Your task to perform on an android device: change the clock display to analog Image 0: 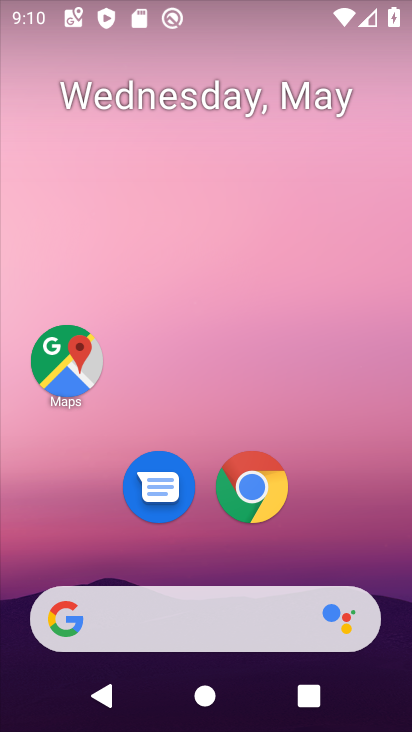
Step 0: drag from (351, 516) to (273, 109)
Your task to perform on an android device: change the clock display to analog Image 1: 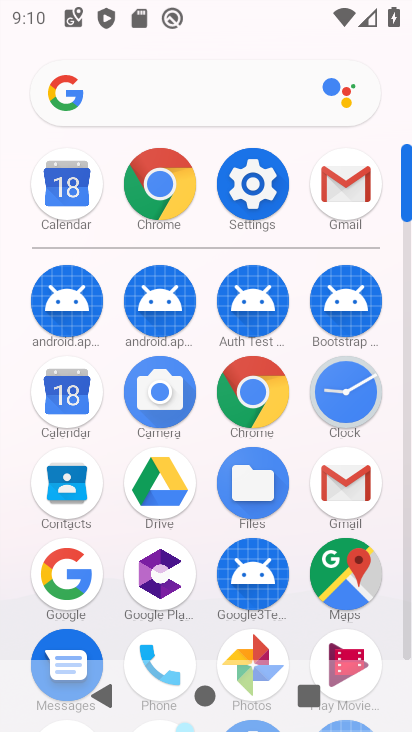
Step 1: click (351, 399)
Your task to perform on an android device: change the clock display to analog Image 2: 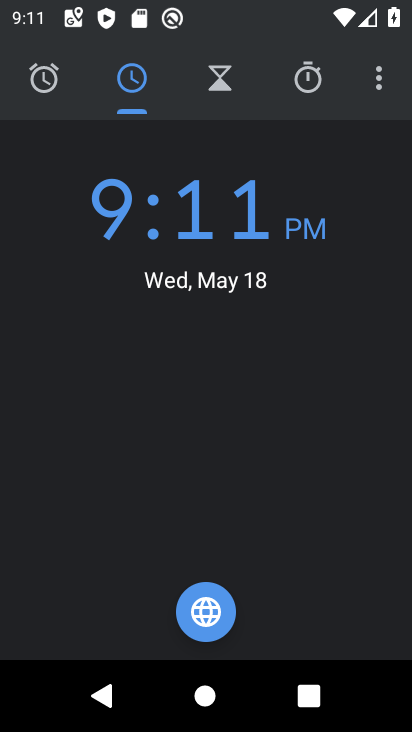
Step 2: click (379, 77)
Your task to perform on an android device: change the clock display to analog Image 3: 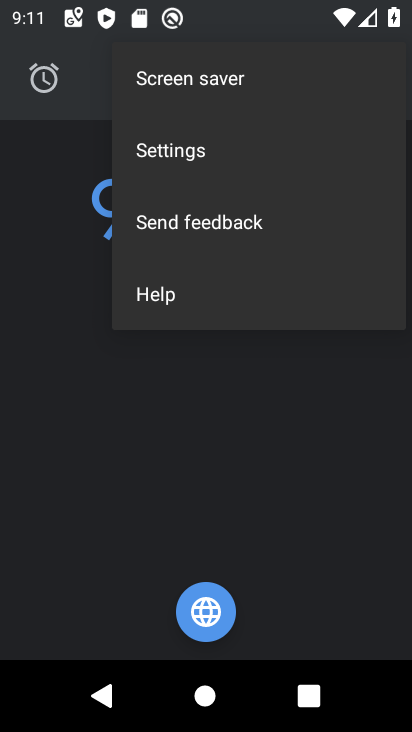
Step 3: click (183, 140)
Your task to perform on an android device: change the clock display to analog Image 4: 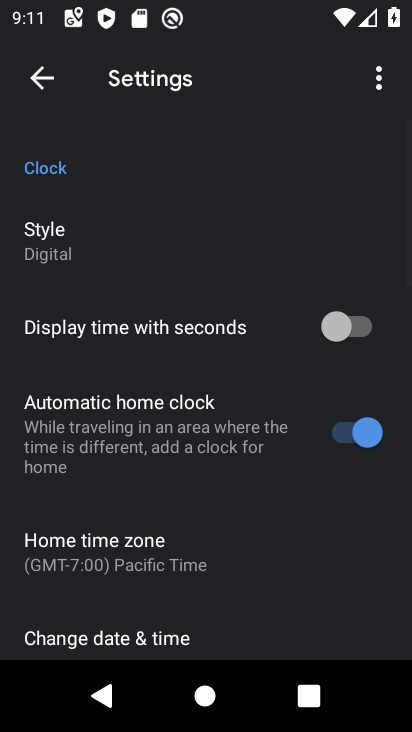
Step 4: click (54, 253)
Your task to perform on an android device: change the clock display to analog Image 5: 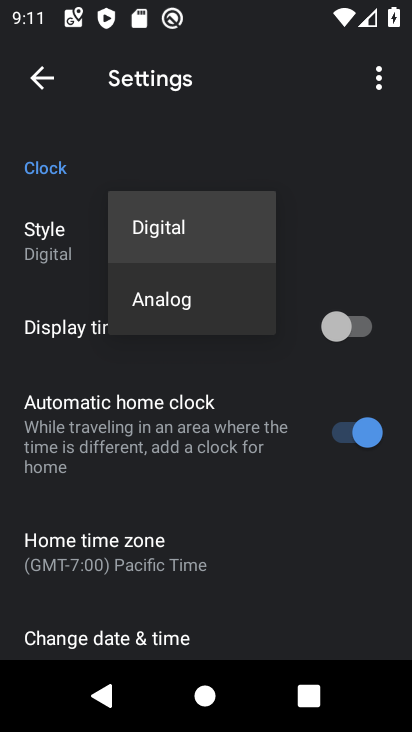
Step 5: click (143, 289)
Your task to perform on an android device: change the clock display to analog Image 6: 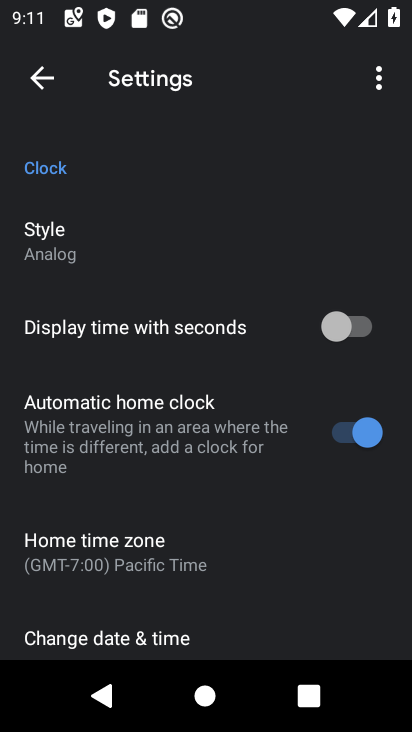
Step 6: task complete